Your task to perform on an android device: Do I have any events today? Image 0: 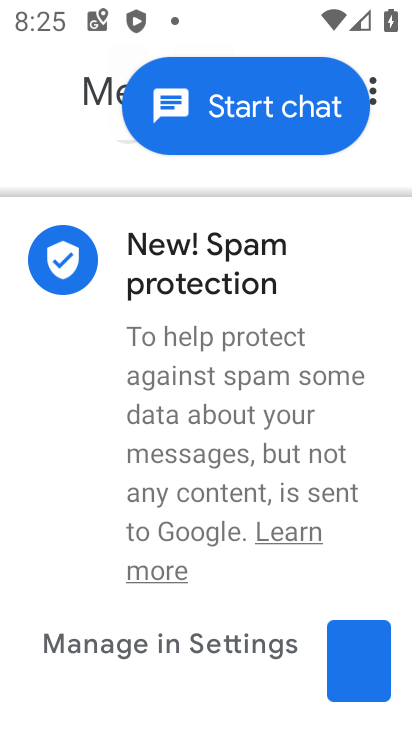
Step 0: press home button
Your task to perform on an android device: Do I have any events today? Image 1: 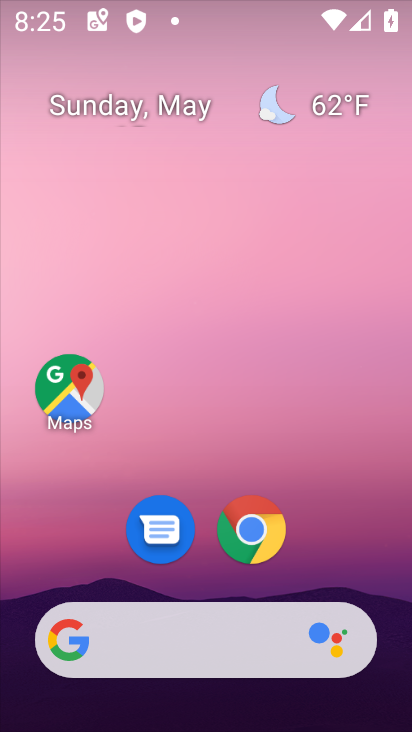
Step 1: drag from (304, 556) to (341, 114)
Your task to perform on an android device: Do I have any events today? Image 2: 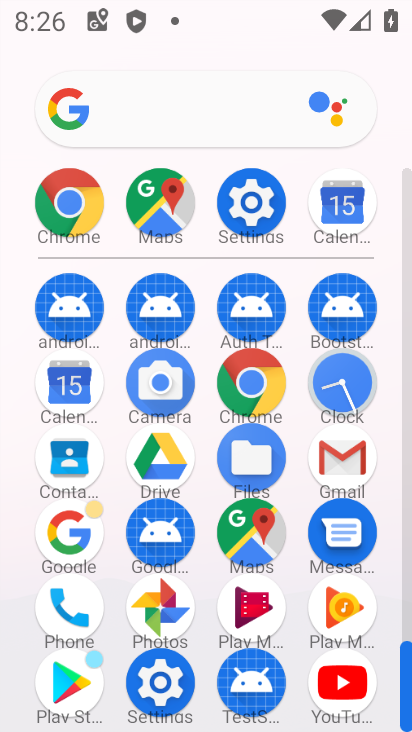
Step 2: drag from (289, 640) to (314, 204)
Your task to perform on an android device: Do I have any events today? Image 3: 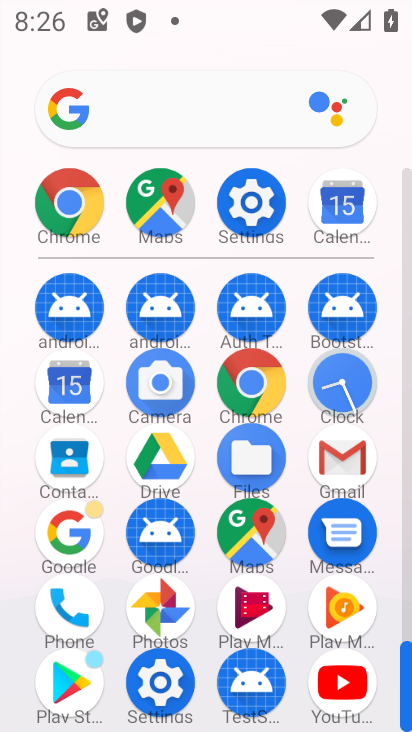
Step 3: click (237, 394)
Your task to perform on an android device: Do I have any events today? Image 4: 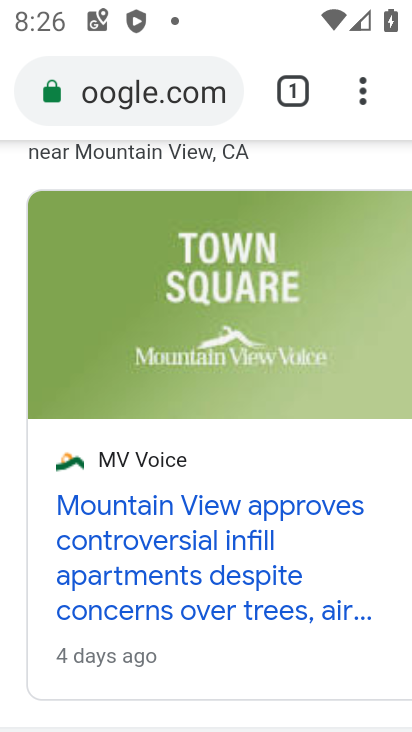
Step 4: click (170, 86)
Your task to perform on an android device: Do I have any events today? Image 5: 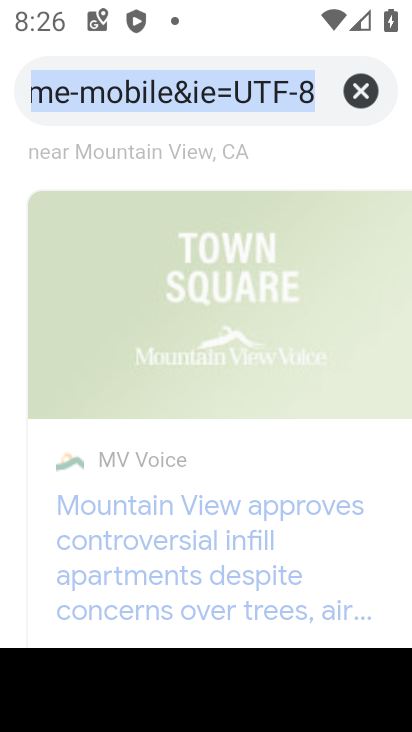
Step 5: click (354, 87)
Your task to perform on an android device: Do I have any events today? Image 6: 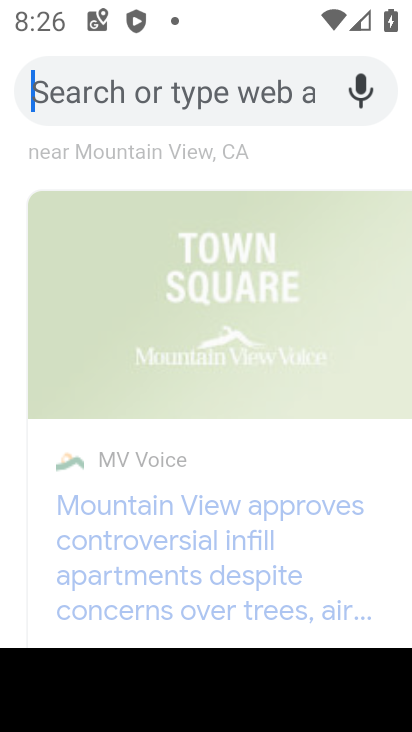
Step 6: click (184, 104)
Your task to perform on an android device: Do I have any events today? Image 7: 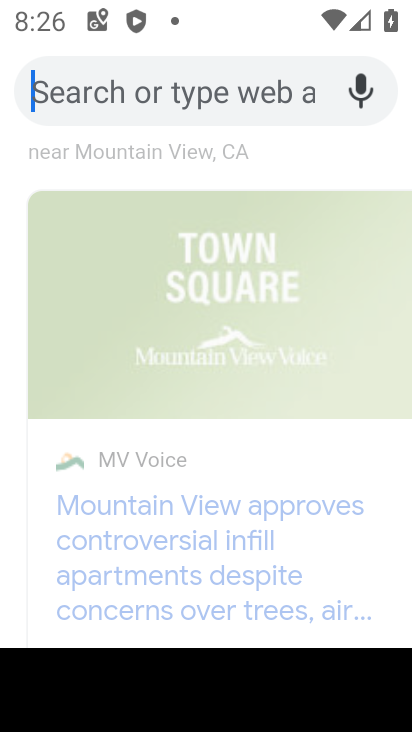
Step 7: type "do i have any events today"
Your task to perform on an android device: Do I have any events today? Image 8: 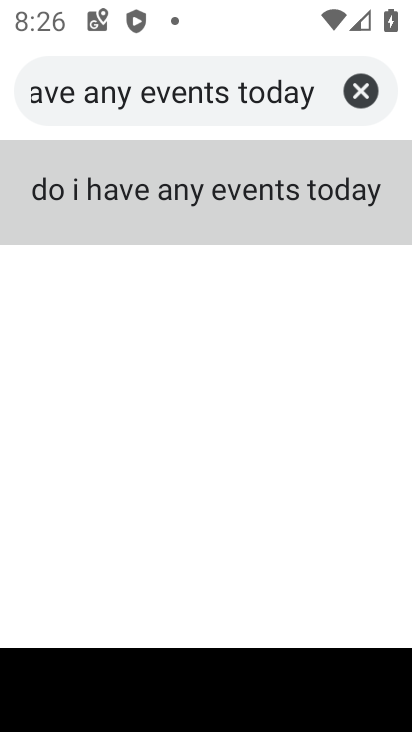
Step 8: click (179, 201)
Your task to perform on an android device: Do I have any events today? Image 9: 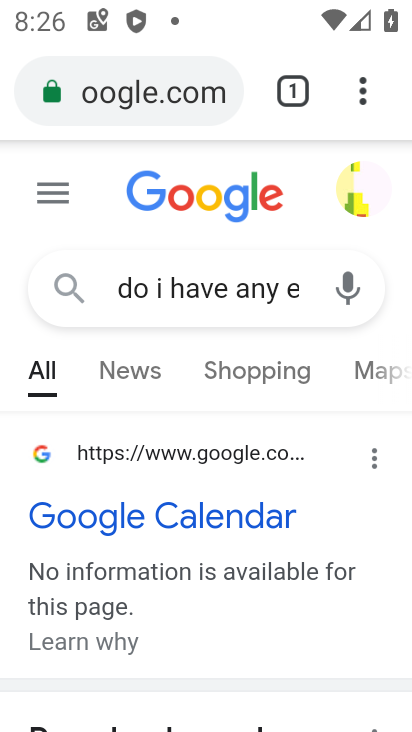
Step 9: task complete